Your task to perform on an android device: Go to accessibility settings Image 0: 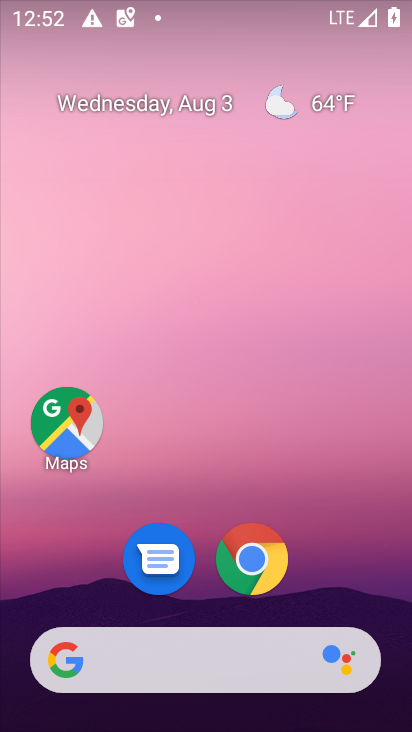
Step 0: drag from (198, 621) to (224, 21)
Your task to perform on an android device: Go to accessibility settings Image 1: 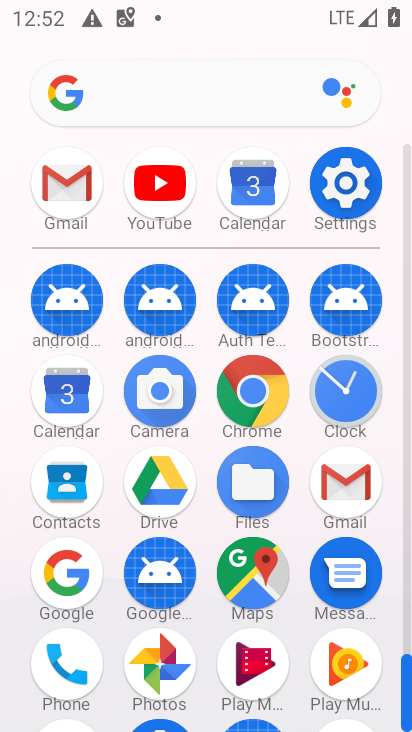
Step 1: click (329, 194)
Your task to perform on an android device: Go to accessibility settings Image 2: 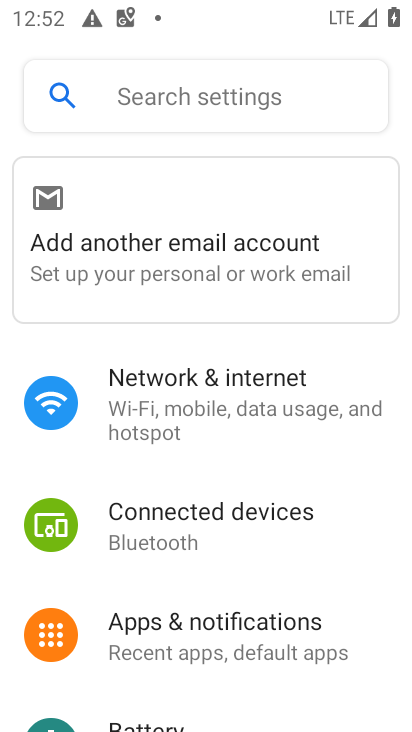
Step 2: drag from (205, 683) to (206, 351)
Your task to perform on an android device: Go to accessibility settings Image 3: 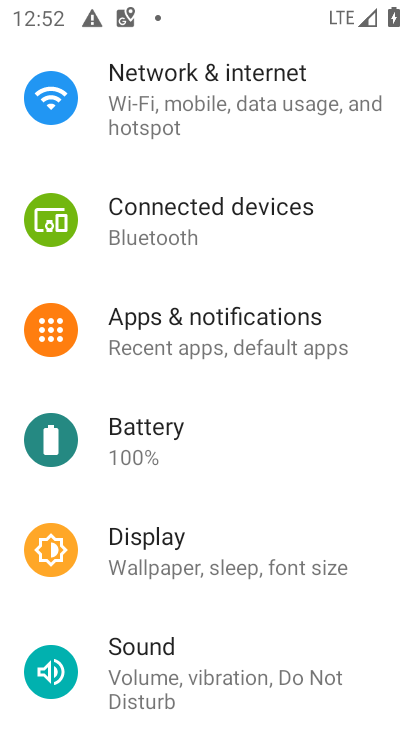
Step 3: drag from (197, 655) to (205, 227)
Your task to perform on an android device: Go to accessibility settings Image 4: 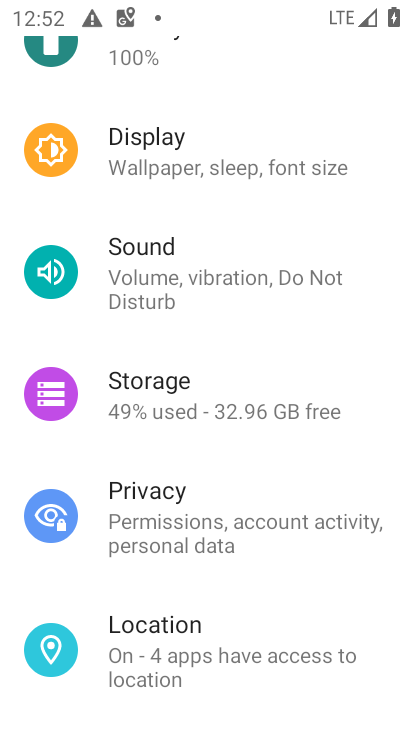
Step 4: drag from (183, 657) to (184, 168)
Your task to perform on an android device: Go to accessibility settings Image 5: 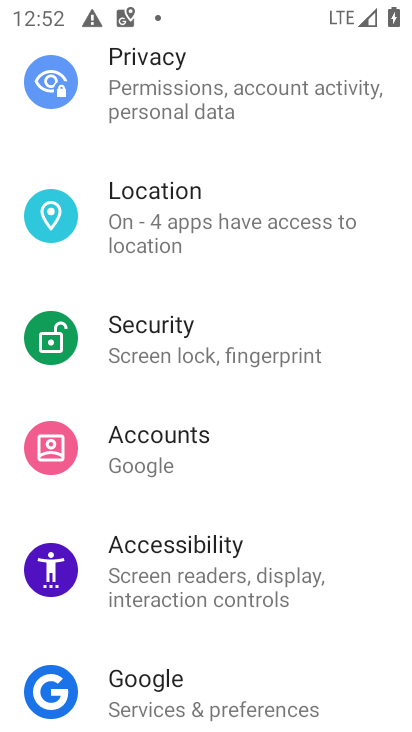
Step 5: click (173, 569)
Your task to perform on an android device: Go to accessibility settings Image 6: 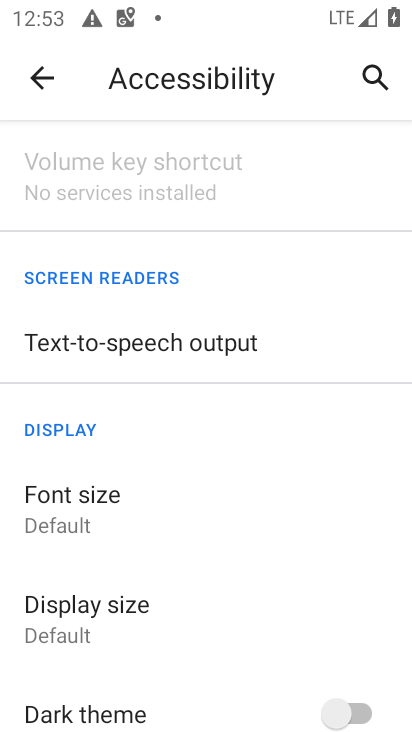
Step 6: task complete